Your task to perform on an android device: change text size in settings app Image 0: 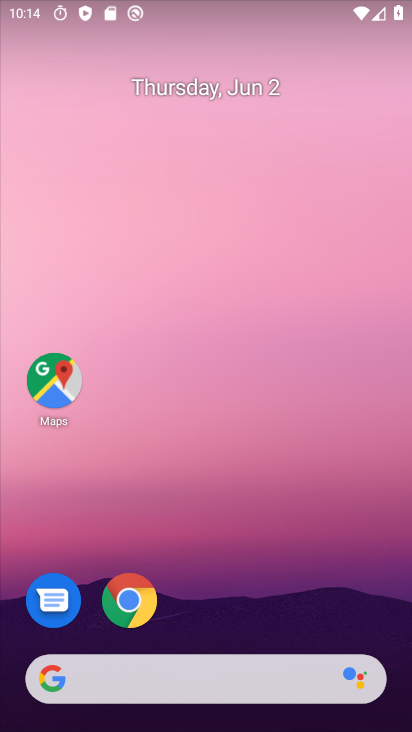
Step 0: drag from (206, 613) to (226, 47)
Your task to perform on an android device: change text size in settings app Image 1: 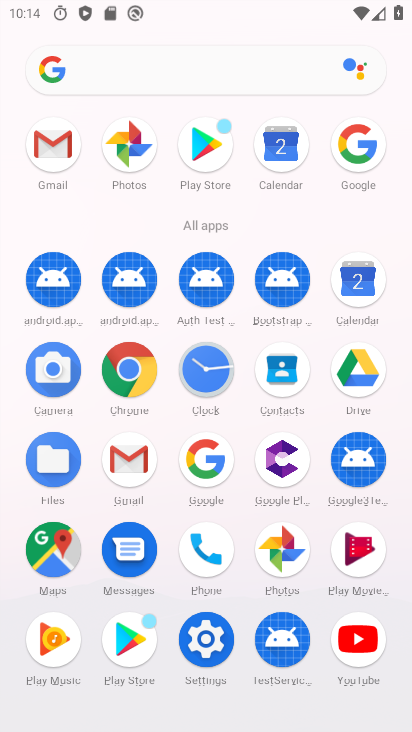
Step 1: click (198, 645)
Your task to perform on an android device: change text size in settings app Image 2: 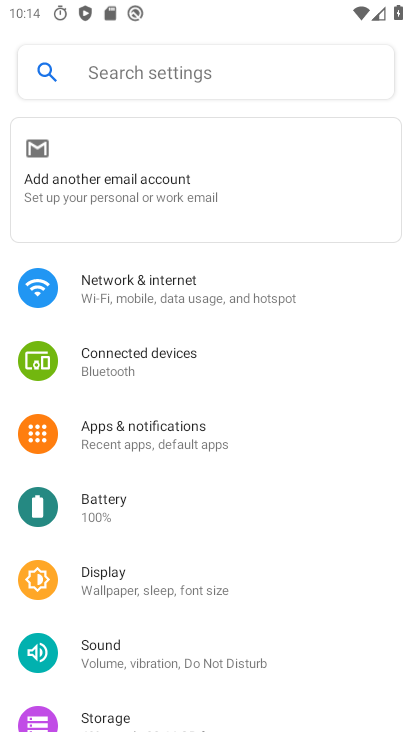
Step 2: drag from (192, 632) to (202, 177)
Your task to perform on an android device: change text size in settings app Image 3: 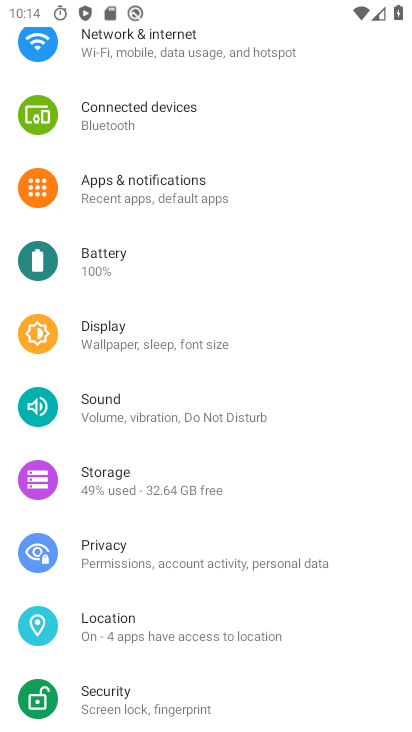
Step 3: click (170, 329)
Your task to perform on an android device: change text size in settings app Image 4: 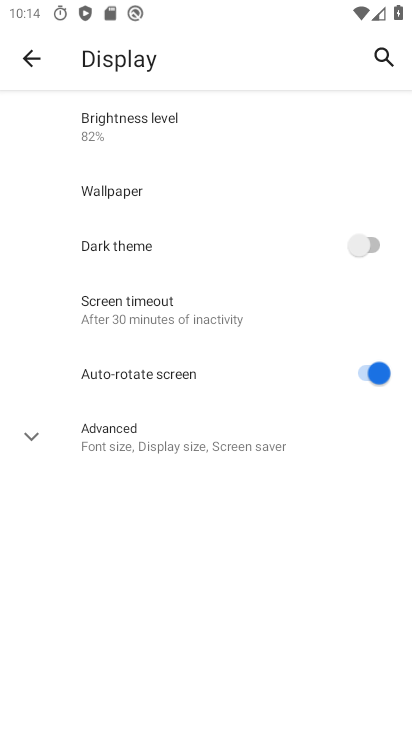
Step 4: click (142, 434)
Your task to perform on an android device: change text size in settings app Image 5: 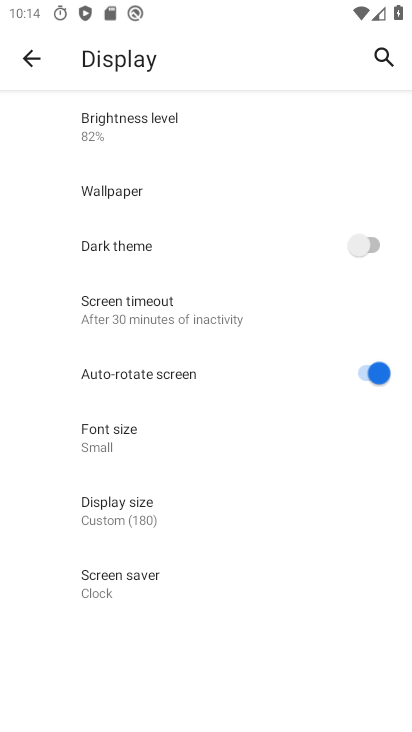
Step 5: click (114, 439)
Your task to perform on an android device: change text size in settings app Image 6: 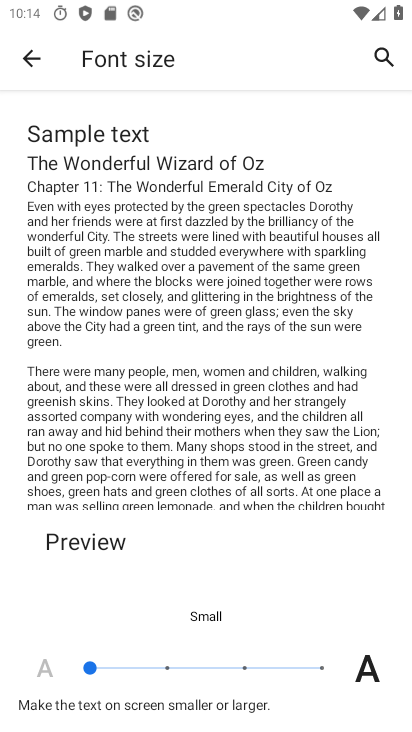
Step 6: task complete